Your task to perform on an android device: Do I have any events tomorrow? Image 0: 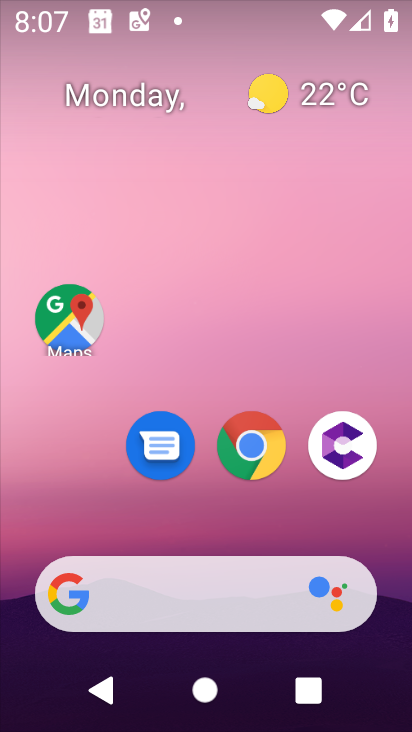
Step 0: press home button
Your task to perform on an android device: Do I have any events tomorrow? Image 1: 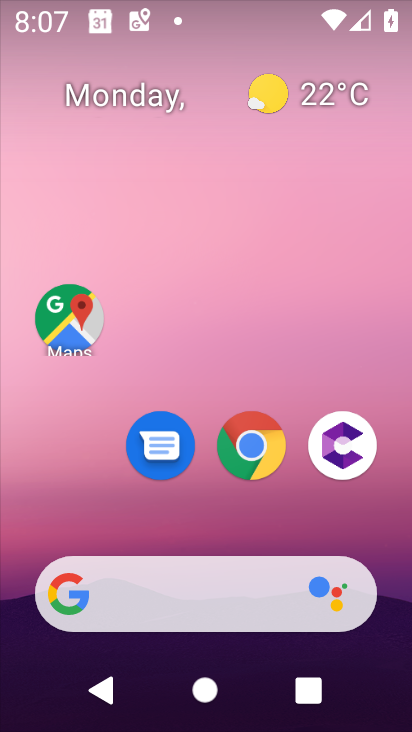
Step 1: drag from (265, 456) to (294, 0)
Your task to perform on an android device: Do I have any events tomorrow? Image 2: 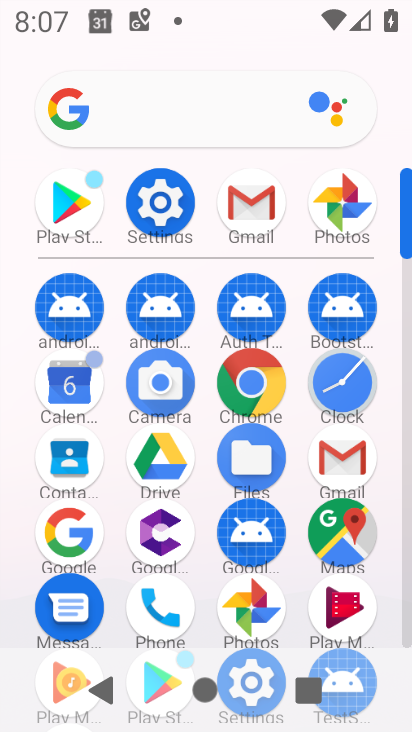
Step 2: click (61, 401)
Your task to perform on an android device: Do I have any events tomorrow? Image 3: 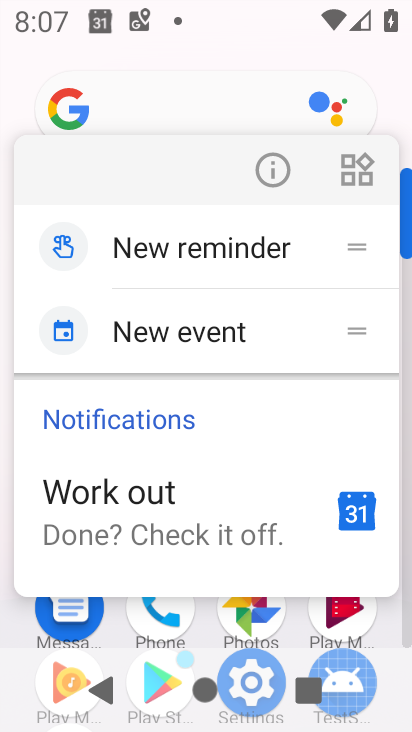
Step 3: click (202, 47)
Your task to perform on an android device: Do I have any events tomorrow? Image 4: 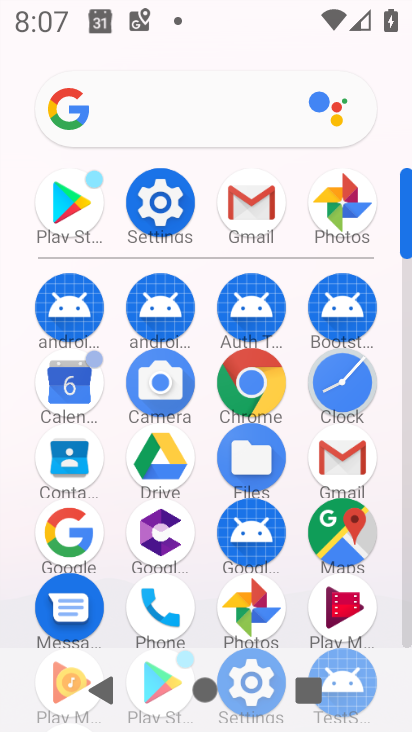
Step 4: click (67, 394)
Your task to perform on an android device: Do I have any events tomorrow? Image 5: 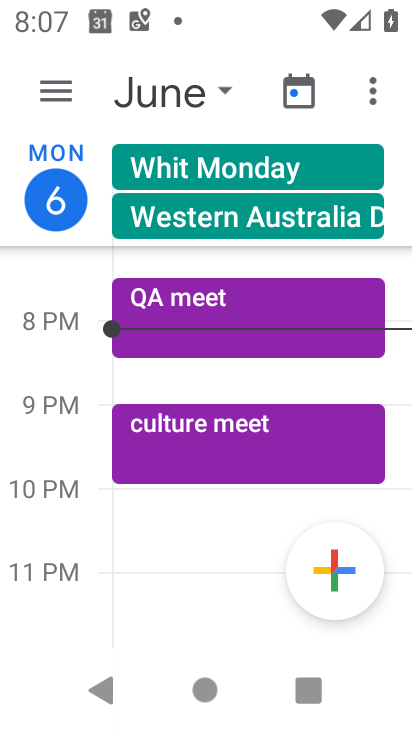
Step 5: drag from (282, 564) to (245, 148)
Your task to perform on an android device: Do I have any events tomorrow? Image 6: 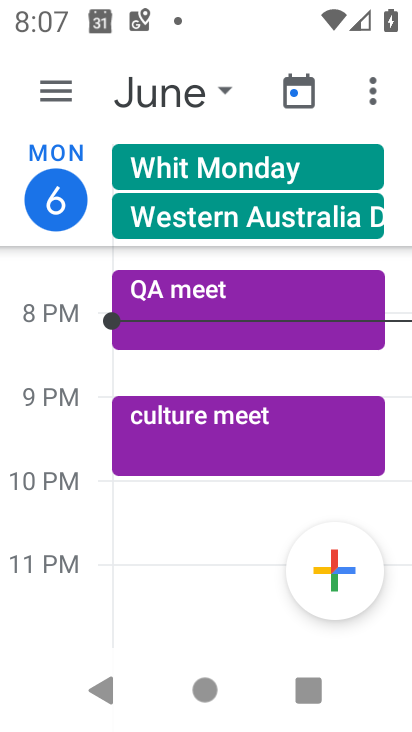
Step 6: click (92, 90)
Your task to perform on an android device: Do I have any events tomorrow? Image 7: 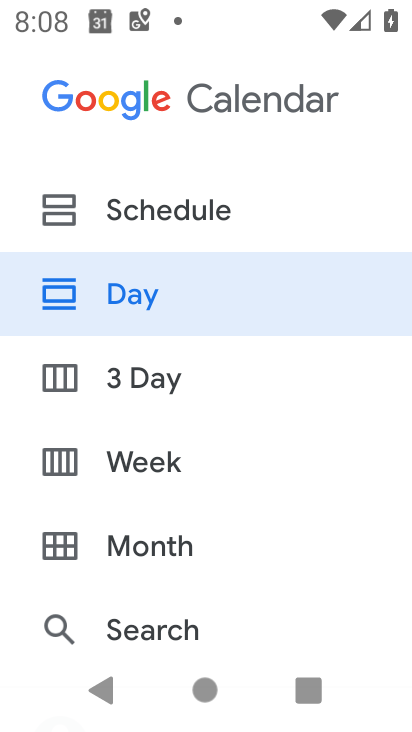
Step 7: task complete